Your task to perform on an android device: snooze an email in the gmail app Image 0: 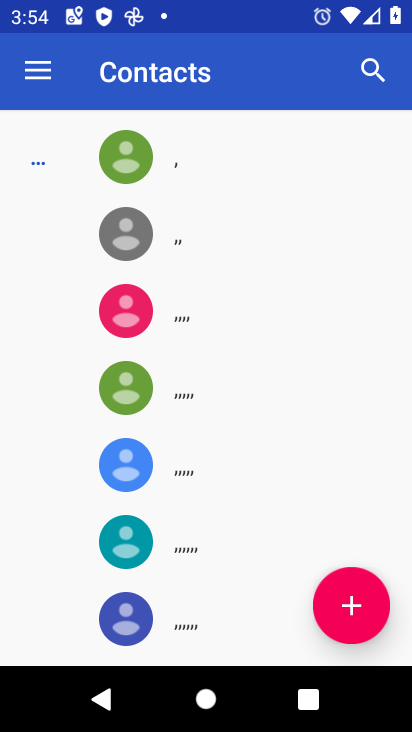
Step 0: press home button
Your task to perform on an android device: snooze an email in the gmail app Image 1: 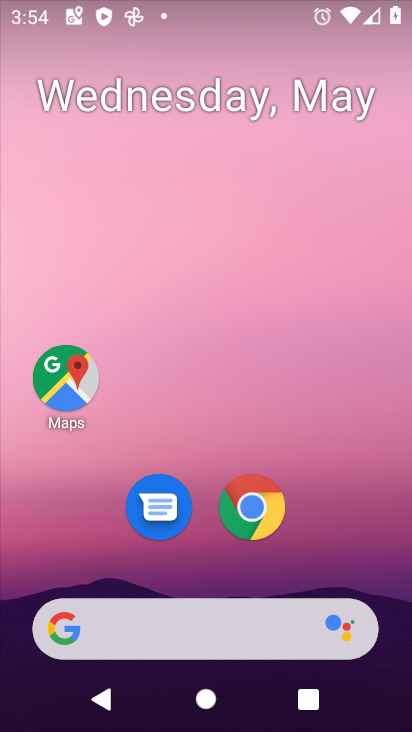
Step 1: drag from (292, 546) to (346, 171)
Your task to perform on an android device: snooze an email in the gmail app Image 2: 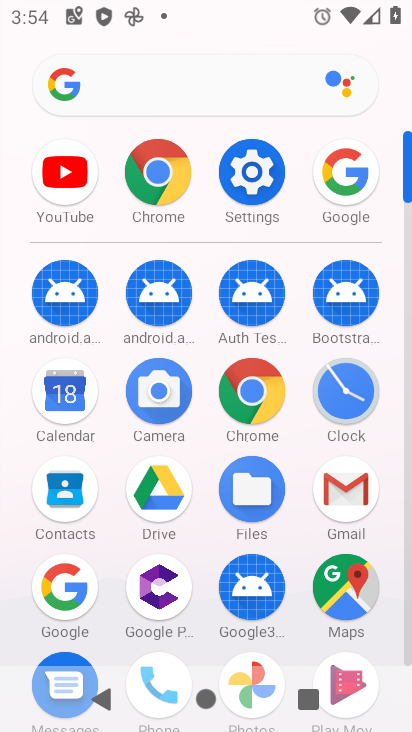
Step 2: click (346, 473)
Your task to perform on an android device: snooze an email in the gmail app Image 3: 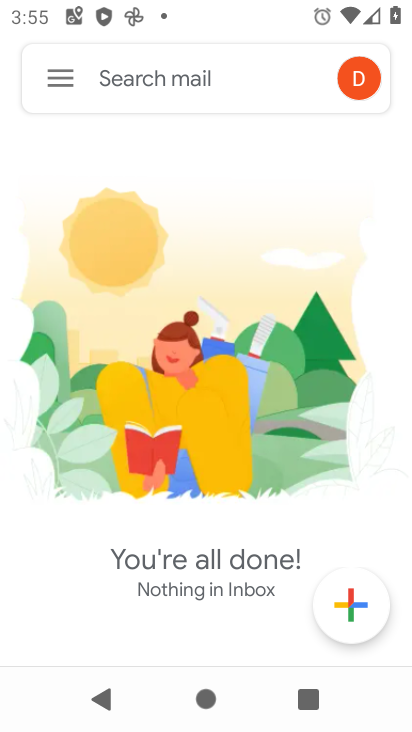
Step 3: click (55, 83)
Your task to perform on an android device: snooze an email in the gmail app Image 4: 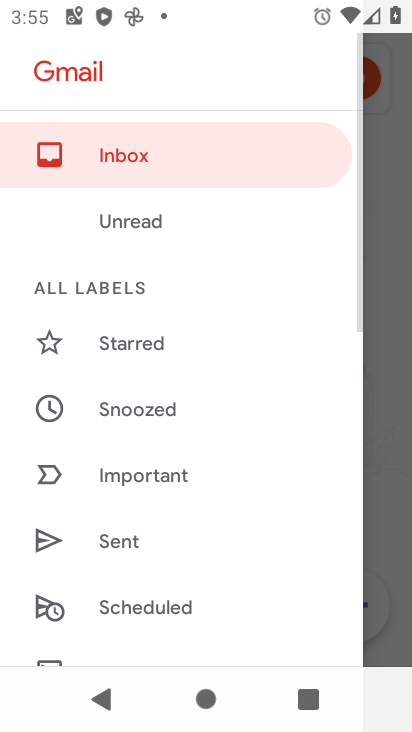
Step 4: click (197, 432)
Your task to perform on an android device: snooze an email in the gmail app Image 5: 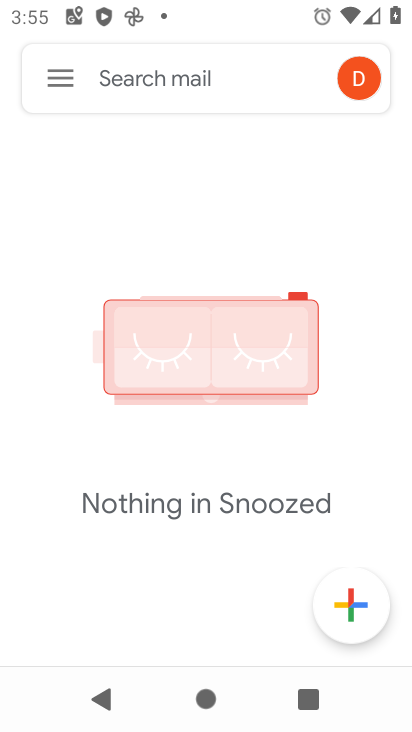
Step 5: task complete